Your task to perform on an android device: add a contact in the contacts app Image 0: 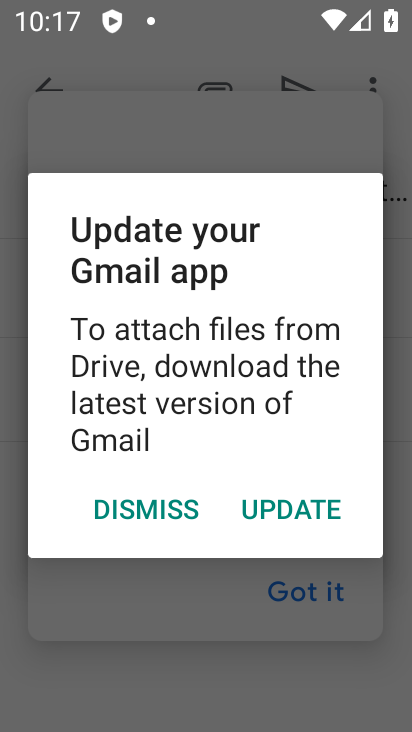
Step 0: press home button
Your task to perform on an android device: add a contact in the contacts app Image 1: 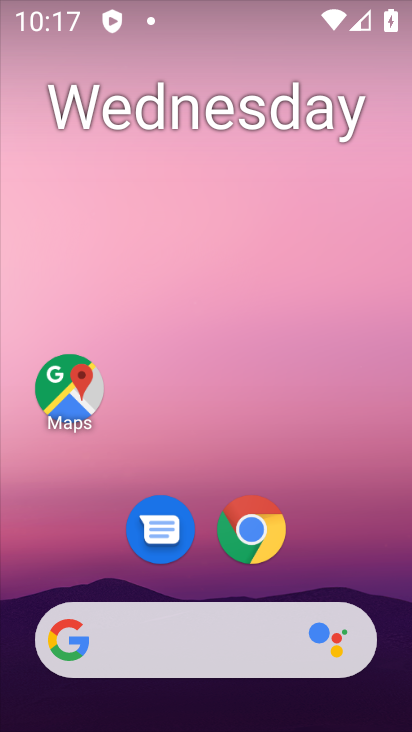
Step 1: drag from (398, 624) to (294, 94)
Your task to perform on an android device: add a contact in the contacts app Image 2: 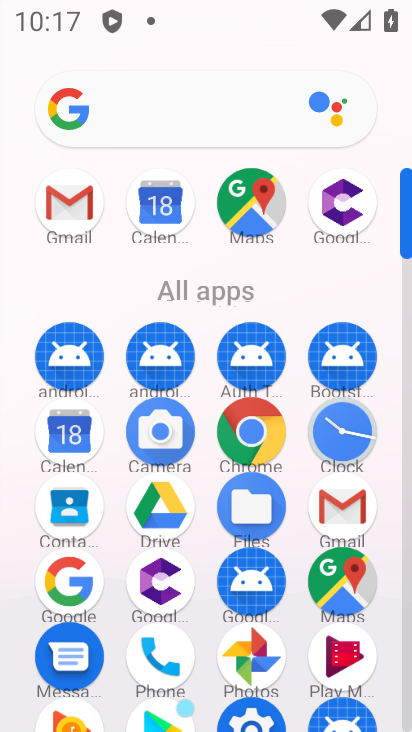
Step 2: click (405, 708)
Your task to perform on an android device: add a contact in the contacts app Image 3: 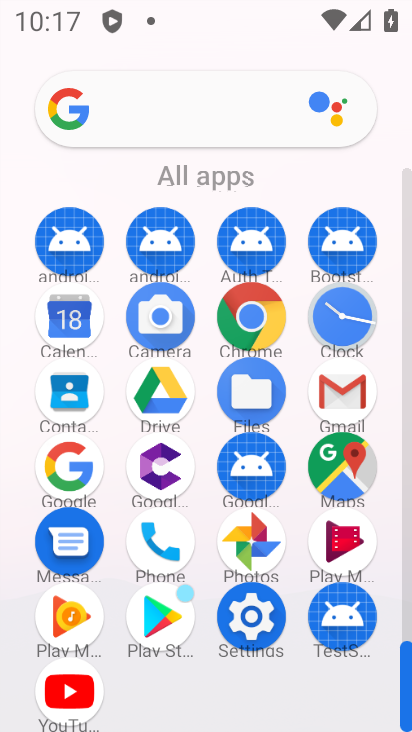
Step 3: click (70, 395)
Your task to perform on an android device: add a contact in the contacts app Image 4: 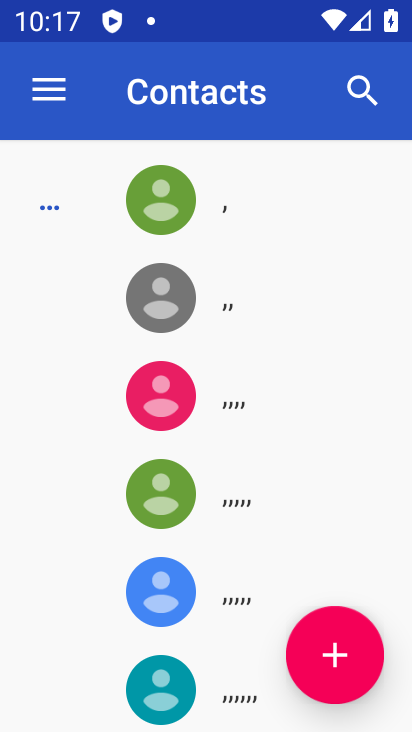
Step 4: click (333, 655)
Your task to perform on an android device: add a contact in the contacts app Image 5: 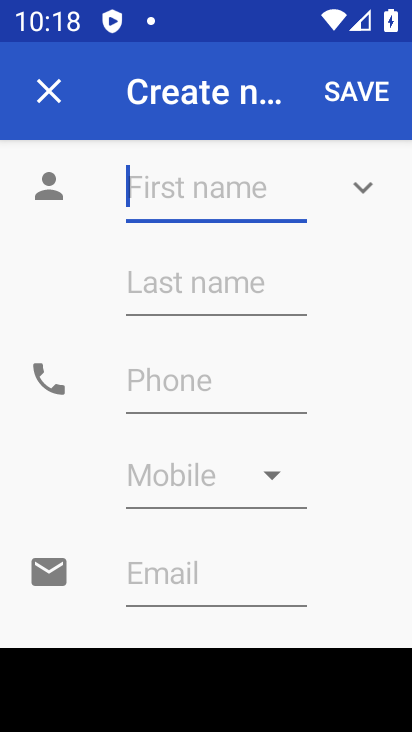
Step 5: type "ipporewcffm"
Your task to perform on an android device: add a contact in the contacts app Image 6: 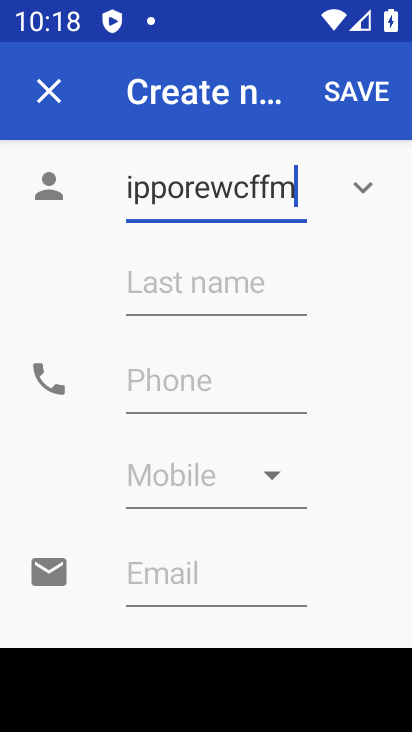
Step 6: click (278, 377)
Your task to perform on an android device: add a contact in the contacts app Image 7: 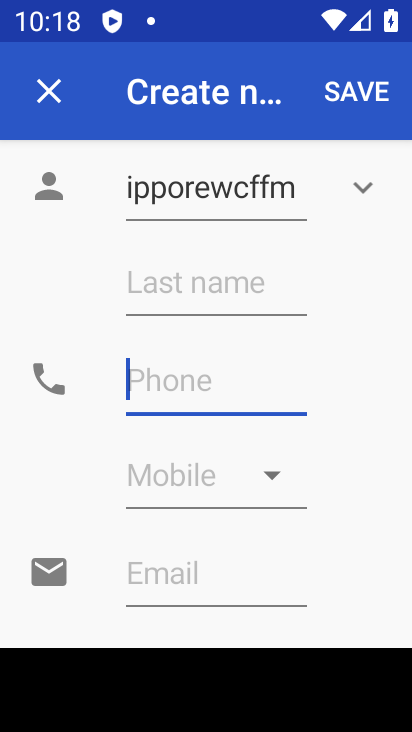
Step 7: type "980633467"
Your task to perform on an android device: add a contact in the contacts app Image 8: 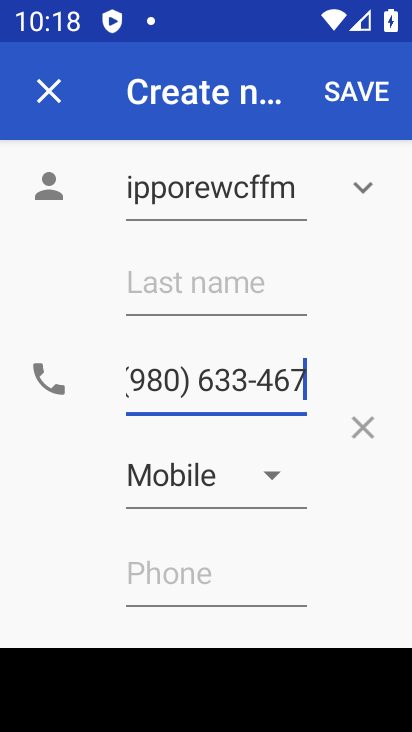
Step 8: click (272, 476)
Your task to perform on an android device: add a contact in the contacts app Image 9: 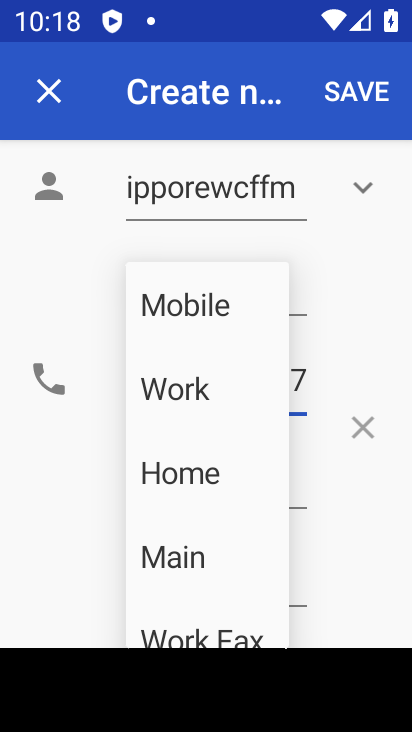
Step 9: click (180, 391)
Your task to perform on an android device: add a contact in the contacts app Image 10: 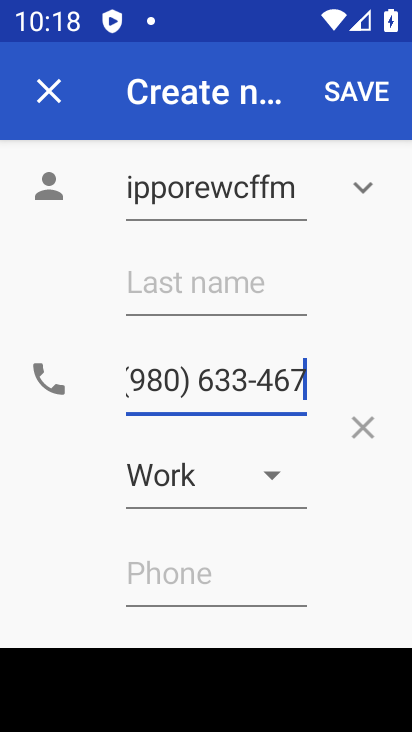
Step 10: click (359, 95)
Your task to perform on an android device: add a contact in the contacts app Image 11: 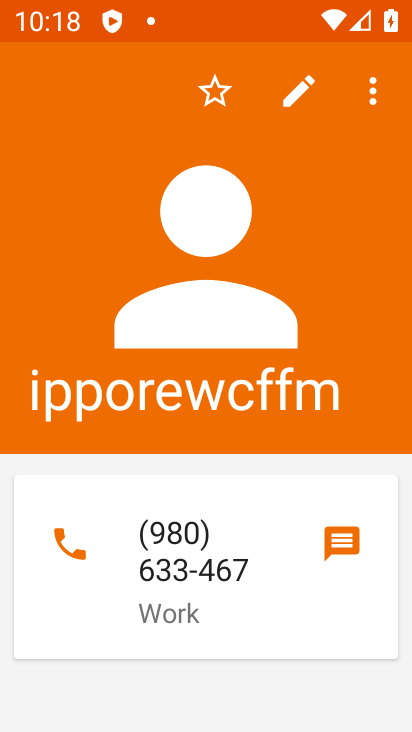
Step 11: task complete